Your task to perform on an android device: set default search engine in the chrome app Image 0: 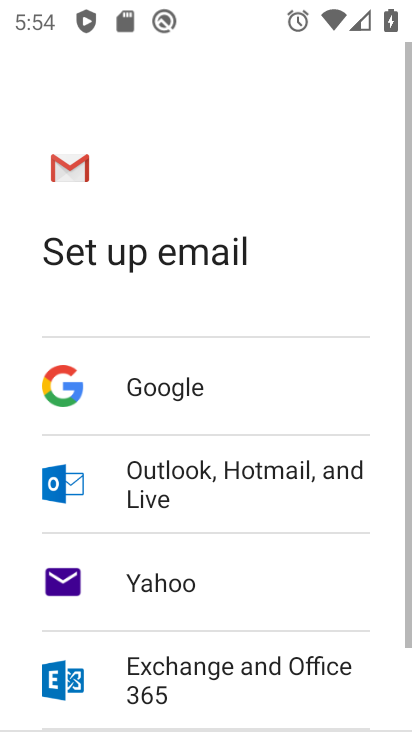
Step 0: press home button
Your task to perform on an android device: set default search engine in the chrome app Image 1: 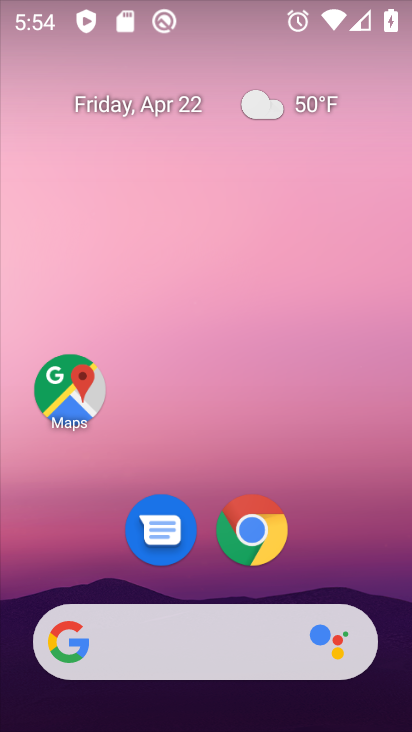
Step 1: drag from (342, 591) to (369, 165)
Your task to perform on an android device: set default search engine in the chrome app Image 2: 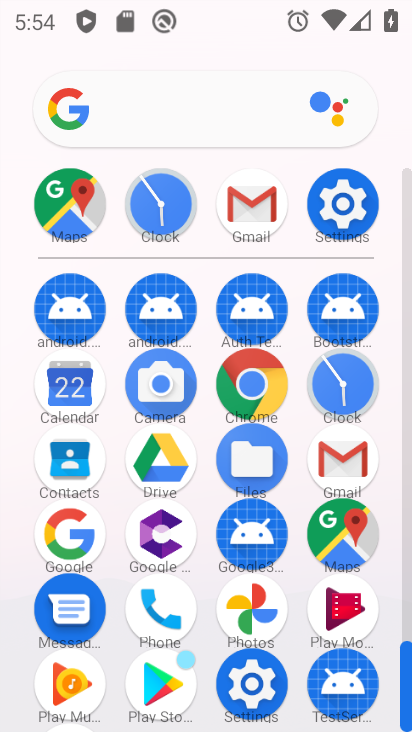
Step 2: click (251, 380)
Your task to perform on an android device: set default search engine in the chrome app Image 3: 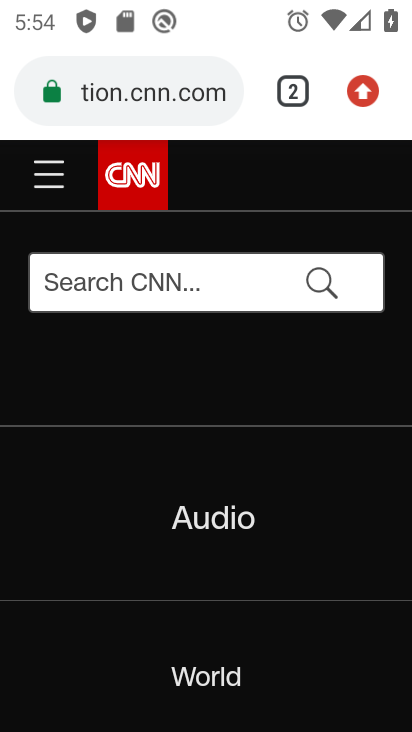
Step 3: click (354, 95)
Your task to perform on an android device: set default search engine in the chrome app Image 4: 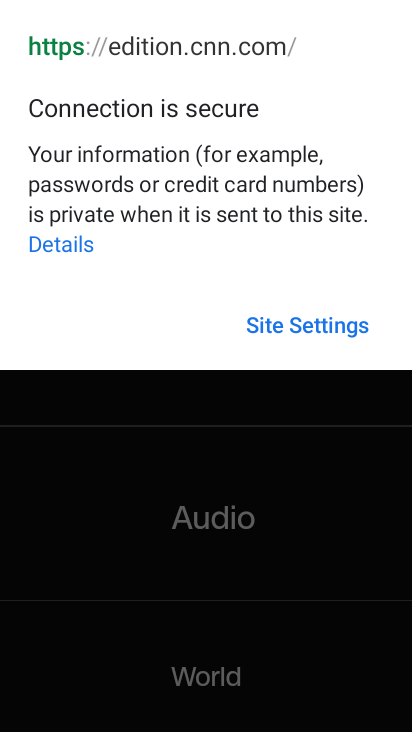
Step 4: click (376, 463)
Your task to perform on an android device: set default search engine in the chrome app Image 5: 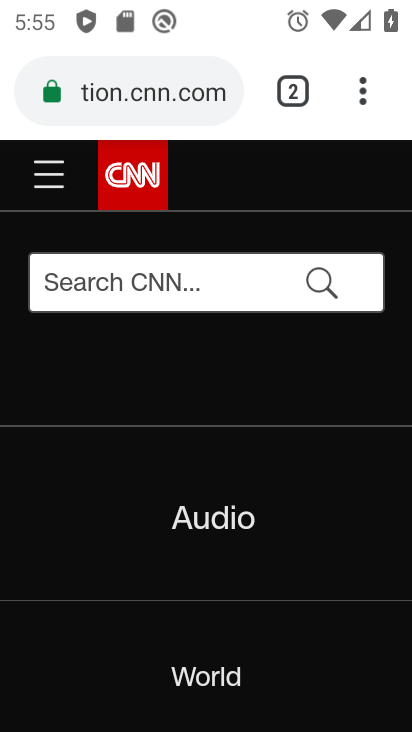
Step 5: click (361, 84)
Your task to perform on an android device: set default search engine in the chrome app Image 6: 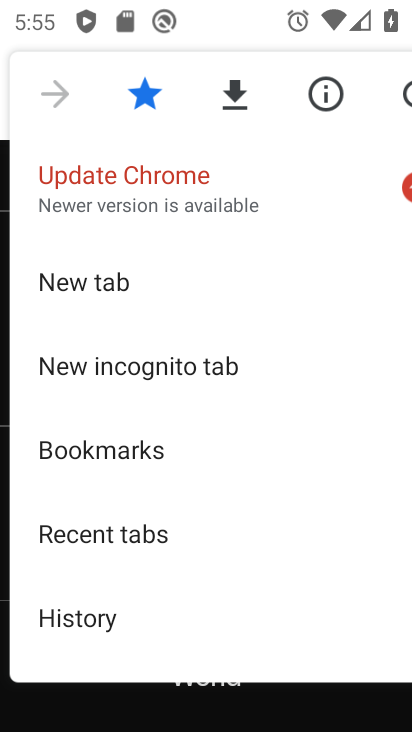
Step 6: drag from (268, 586) to (266, 328)
Your task to perform on an android device: set default search engine in the chrome app Image 7: 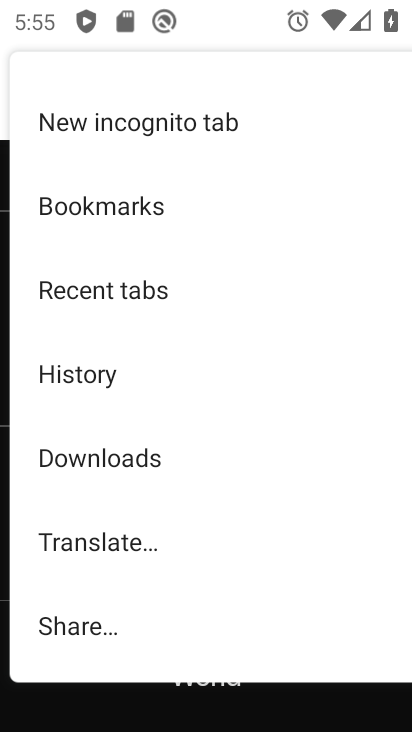
Step 7: drag from (272, 301) to (225, 81)
Your task to perform on an android device: set default search engine in the chrome app Image 8: 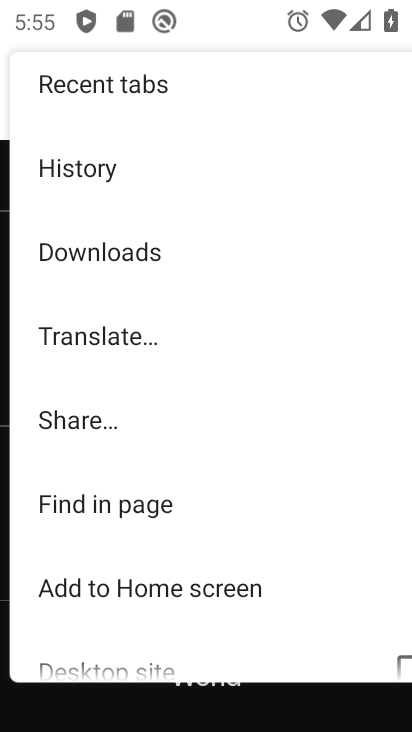
Step 8: drag from (225, 550) to (122, 116)
Your task to perform on an android device: set default search engine in the chrome app Image 9: 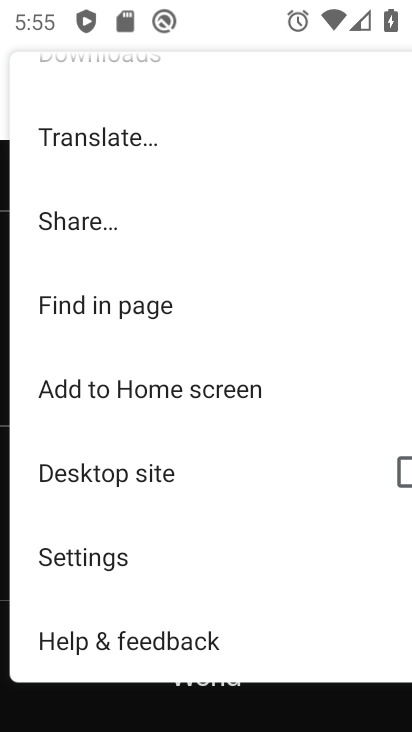
Step 9: click (89, 537)
Your task to perform on an android device: set default search engine in the chrome app Image 10: 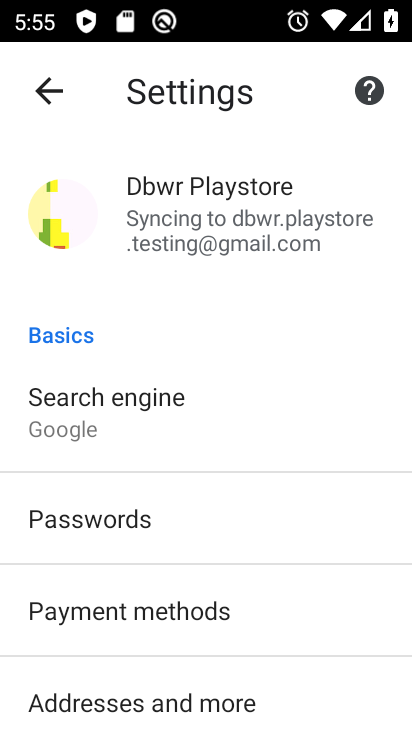
Step 10: click (109, 398)
Your task to perform on an android device: set default search engine in the chrome app Image 11: 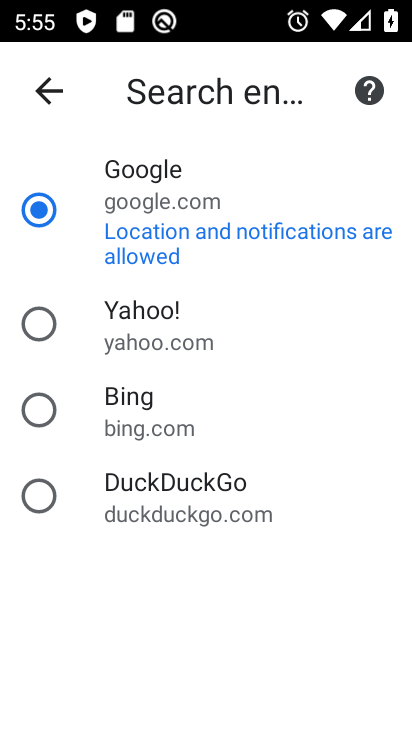
Step 11: task complete